Your task to perform on an android device: check android version Image 0: 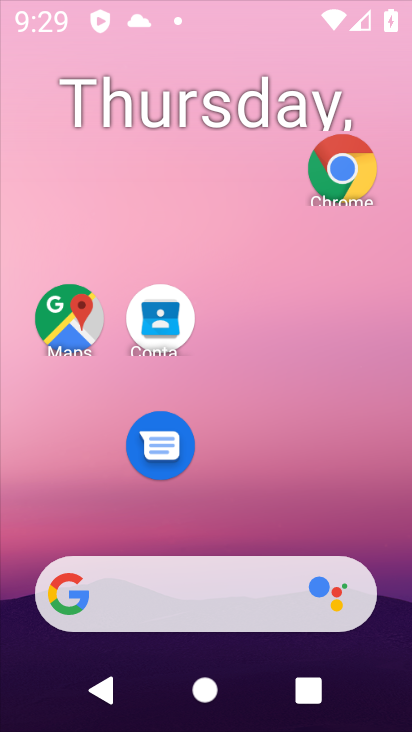
Step 0: click (298, 174)
Your task to perform on an android device: check android version Image 1: 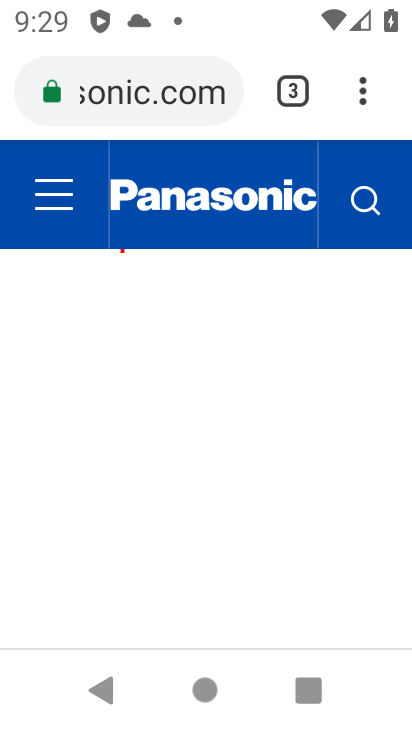
Step 1: press home button
Your task to perform on an android device: check android version Image 2: 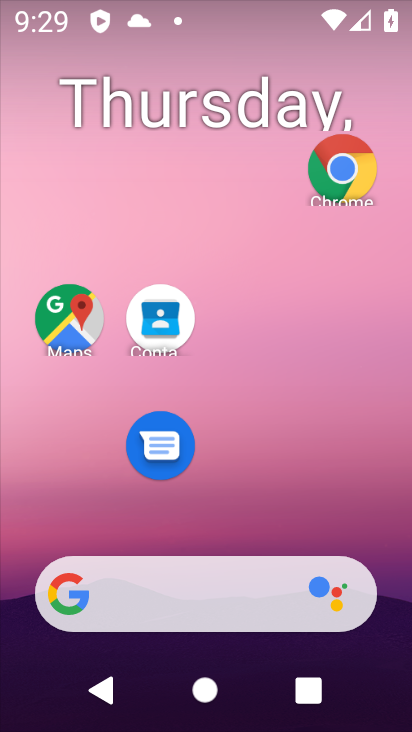
Step 2: drag from (244, 640) to (405, 278)
Your task to perform on an android device: check android version Image 3: 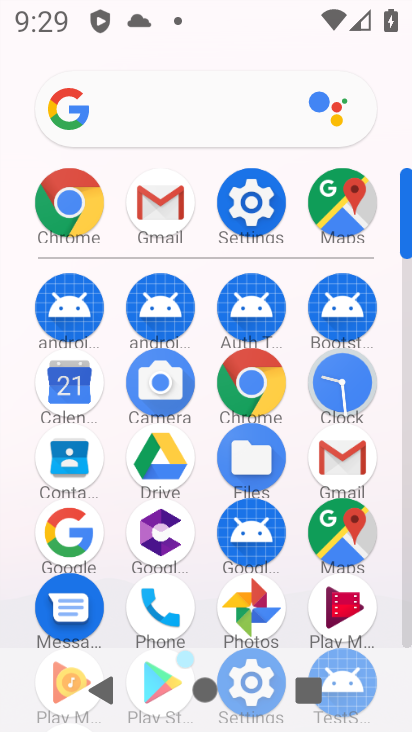
Step 3: click (270, 189)
Your task to perform on an android device: check android version Image 4: 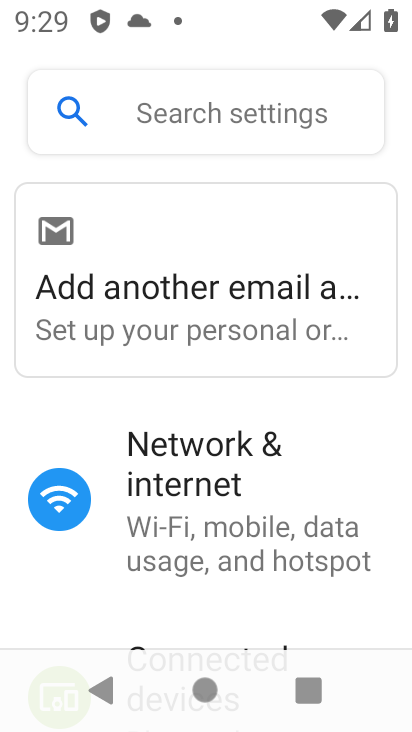
Step 4: click (199, 110)
Your task to perform on an android device: check android version Image 5: 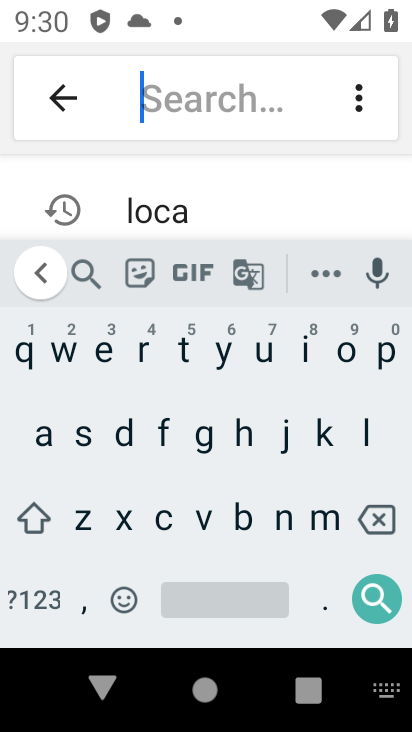
Step 5: click (38, 430)
Your task to perform on an android device: check android version Image 6: 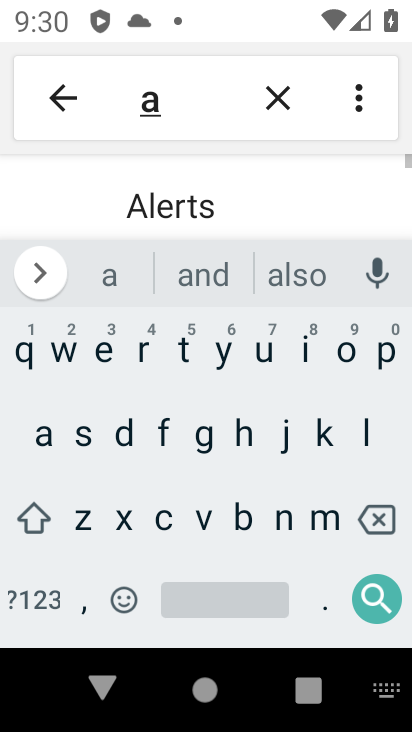
Step 6: click (285, 528)
Your task to perform on an android device: check android version Image 7: 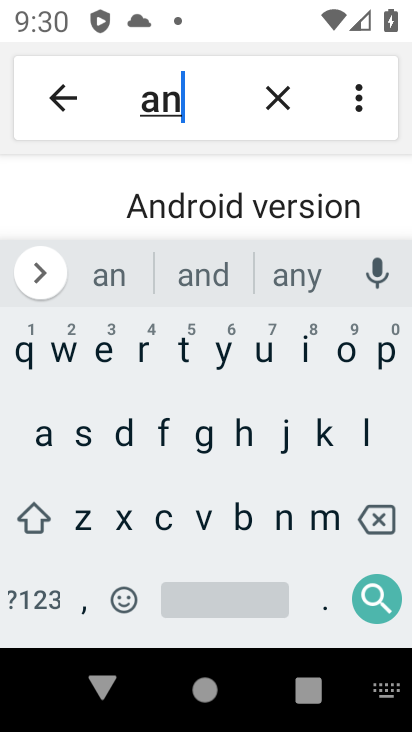
Step 7: click (244, 204)
Your task to perform on an android device: check android version Image 8: 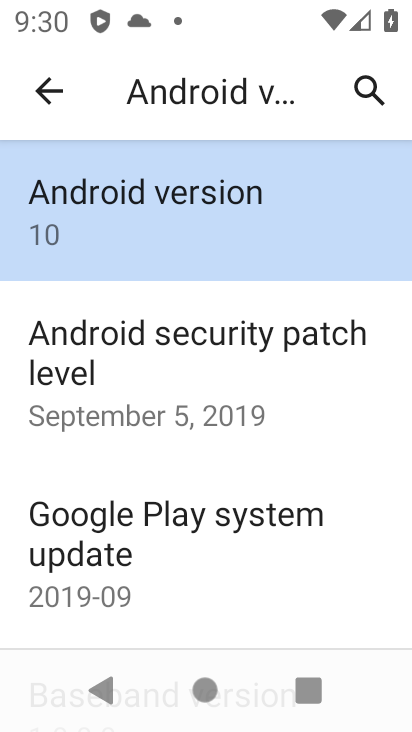
Step 8: task complete